Your task to perform on an android device: Open Google Image 0: 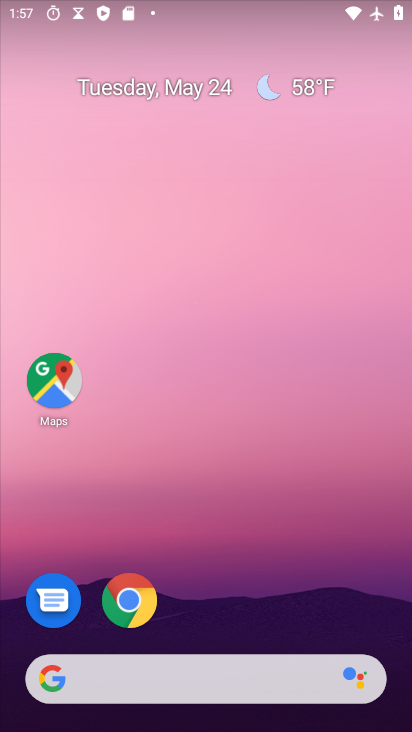
Step 0: drag from (285, 350) to (235, 10)
Your task to perform on an android device: Open Google Image 1: 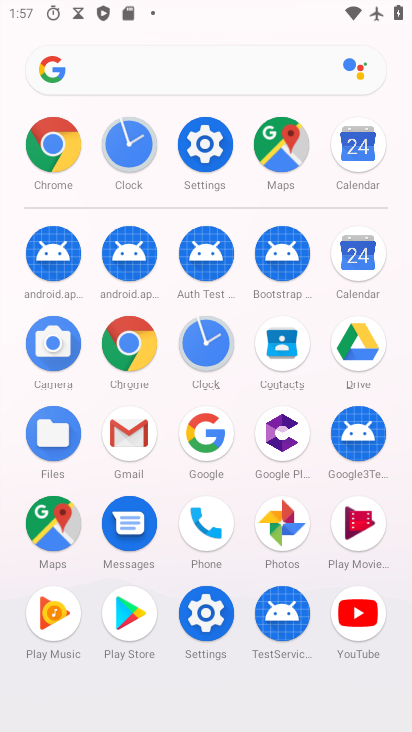
Step 1: click (206, 432)
Your task to perform on an android device: Open Google Image 2: 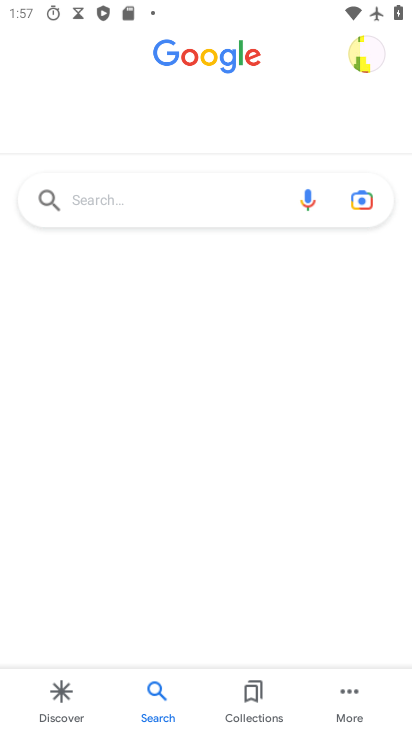
Step 2: task complete